Your task to perform on an android device: toggle show notifications on the lock screen Image 0: 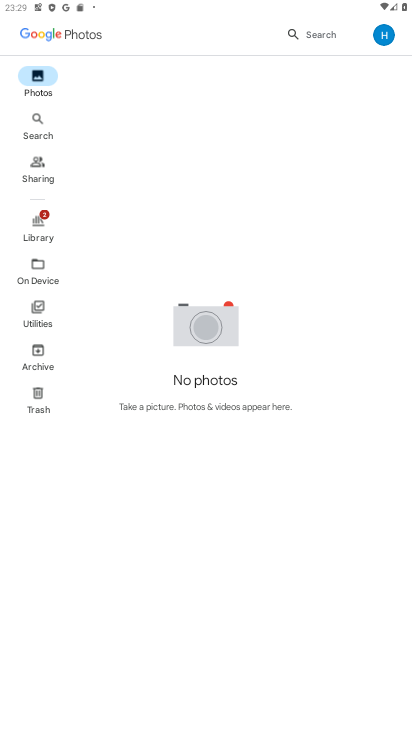
Step 0: press home button
Your task to perform on an android device: toggle show notifications on the lock screen Image 1: 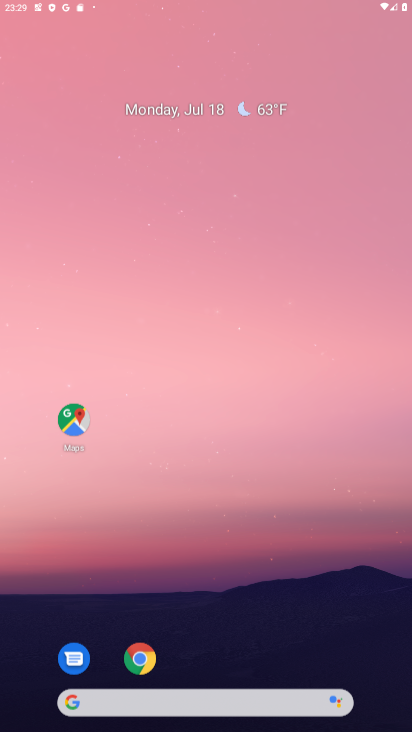
Step 1: drag from (272, 591) to (249, 81)
Your task to perform on an android device: toggle show notifications on the lock screen Image 2: 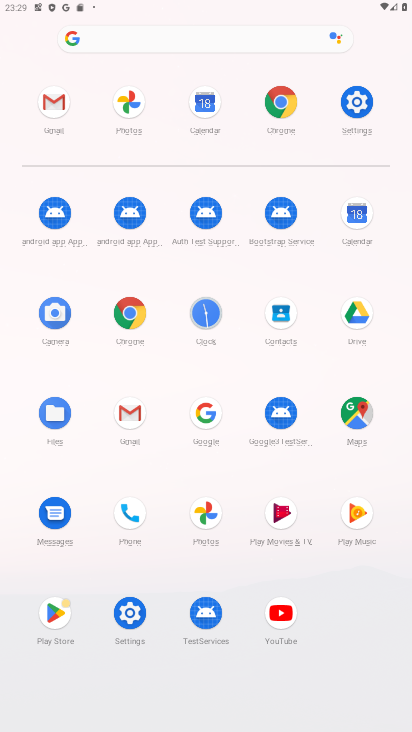
Step 2: click (152, 628)
Your task to perform on an android device: toggle show notifications on the lock screen Image 3: 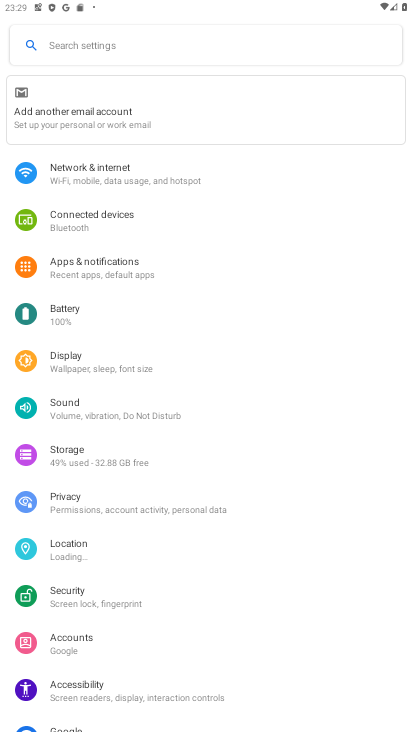
Step 3: click (117, 271)
Your task to perform on an android device: toggle show notifications on the lock screen Image 4: 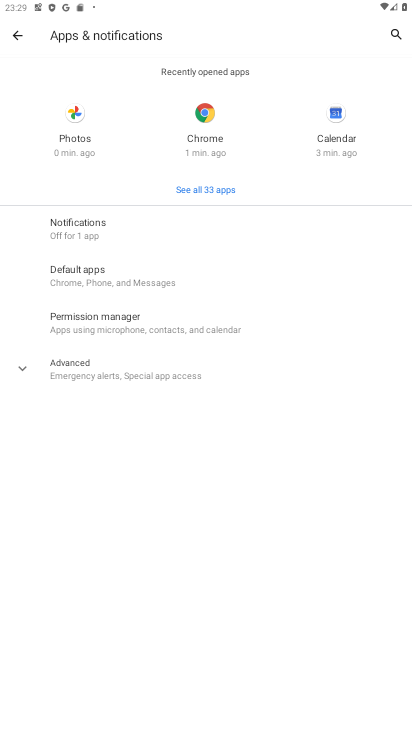
Step 4: click (119, 246)
Your task to perform on an android device: toggle show notifications on the lock screen Image 5: 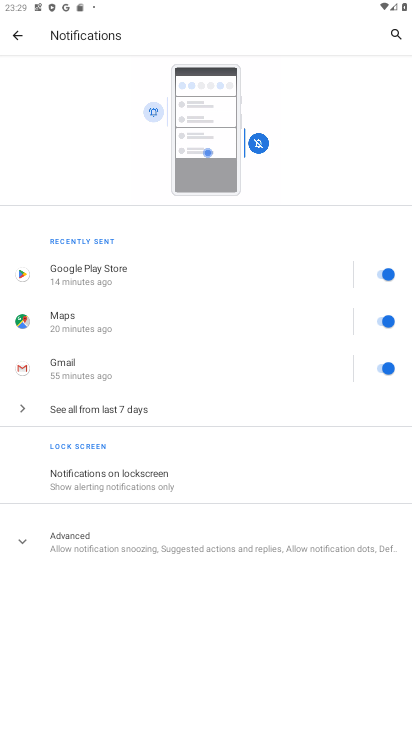
Step 5: click (105, 466)
Your task to perform on an android device: toggle show notifications on the lock screen Image 6: 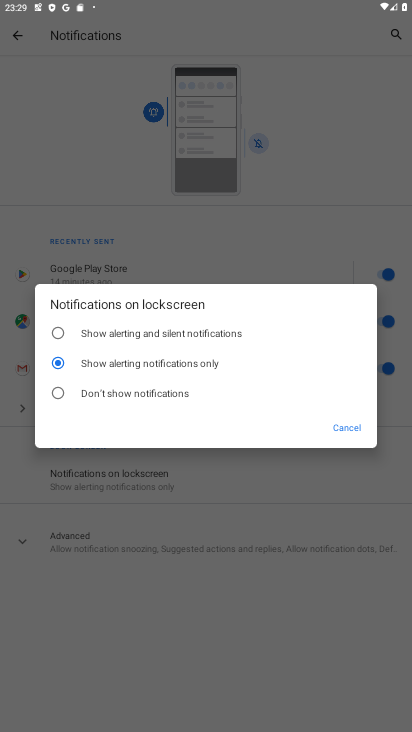
Step 6: click (102, 329)
Your task to perform on an android device: toggle show notifications on the lock screen Image 7: 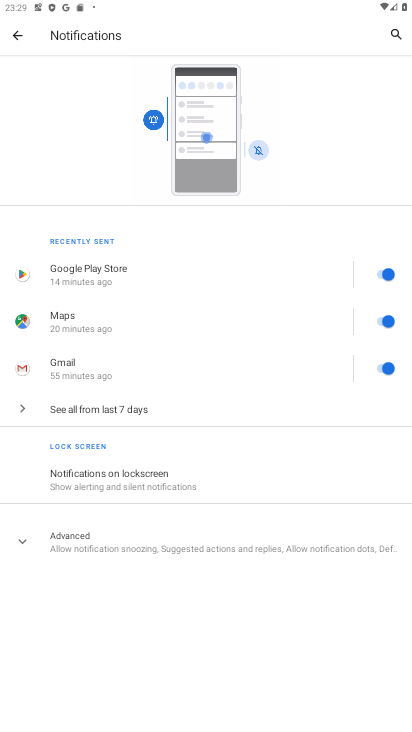
Step 7: task complete